Your task to perform on an android device: Open internet settings Image 0: 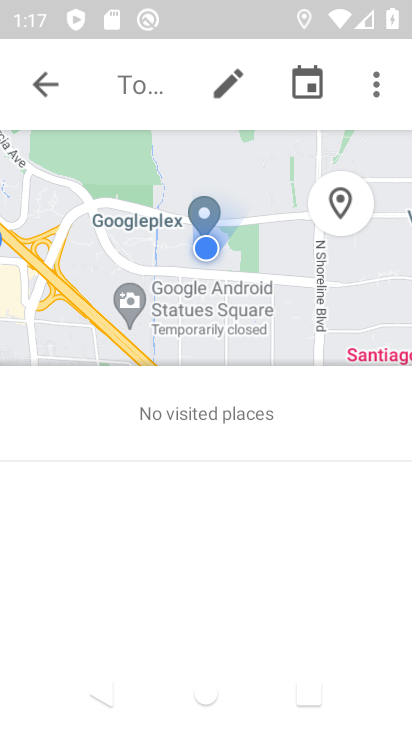
Step 0: press home button
Your task to perform on an android device: Open internet settings Image 1: 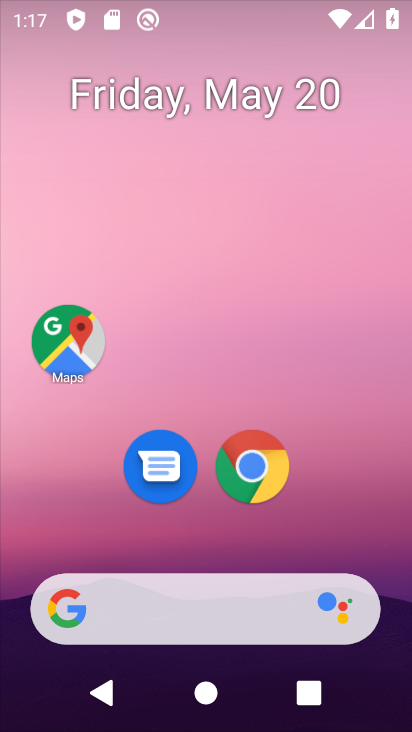
Step 1: drag from (183, 560) to (199, 180)
Your task to perform on an android device: Open internet settings Image 2: 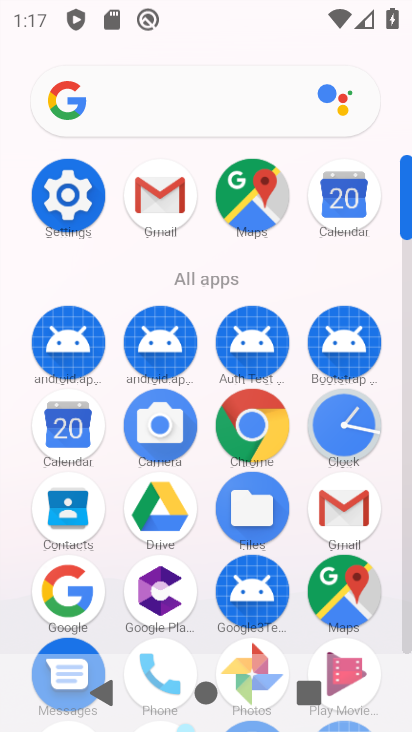
Step 2: click (79, 202)
Your task to perform on an android device: Open internet settings Image 3: 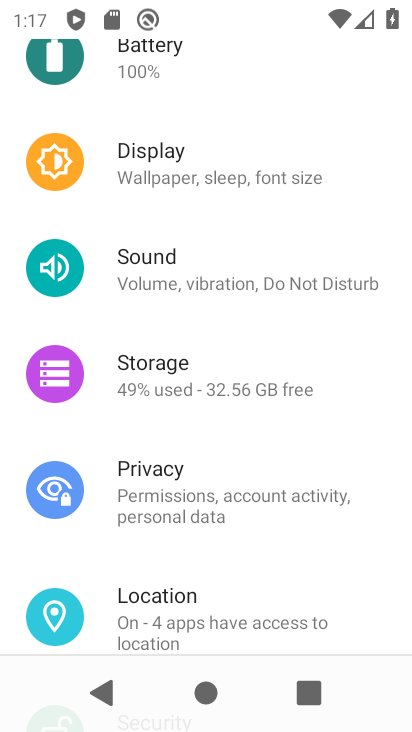
Step 3: drag from (145, 189) to (189, 475)
Your task to perform on an android device: Open internet settings Image 4: 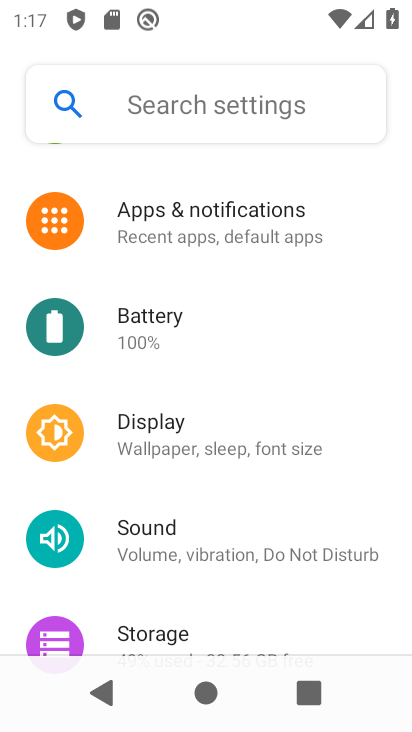
Step 4: drag from (208, 248) to (248, 526)
Your task to perform on an android device: Open internet settings Image 5: 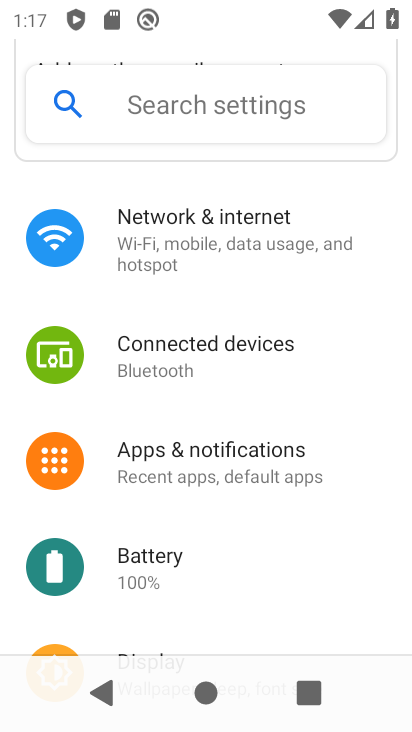
Step 5: drag from (219, 319) to (241, 466)
Your task to perform on an android device: Open internet settings Image 6: 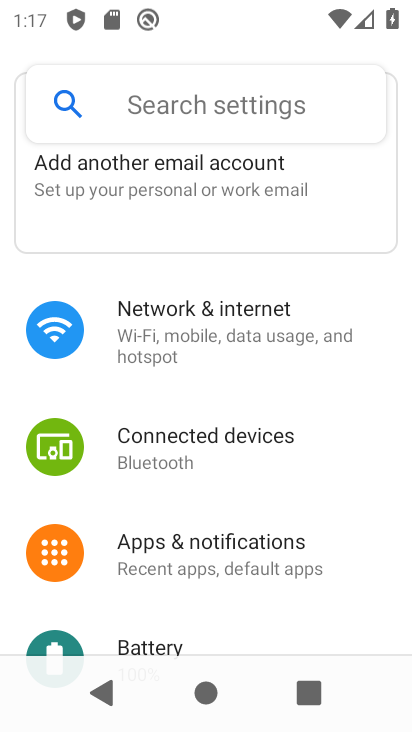
Step 6: drag from (213, 289) to (225, 513)
Your task to perform on an android device: Open internet settings Image 7: 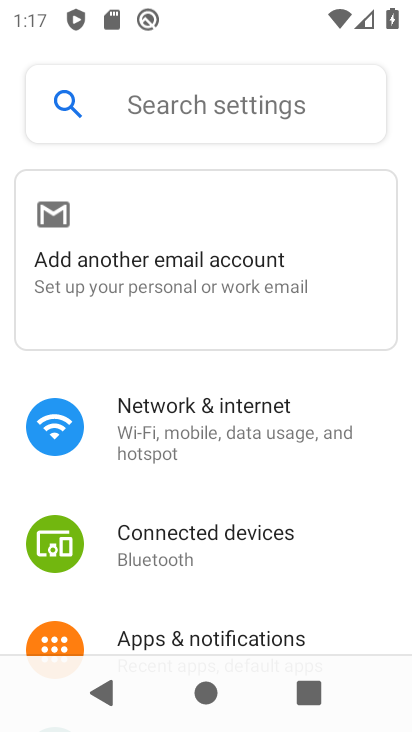
Step 7: click (194, 416)
Your task to perform on an android device: Open internet settings Image 8: 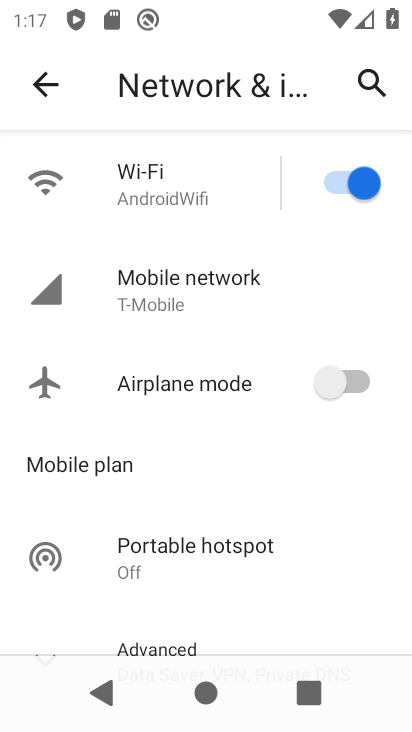
Step 8: click (195, 293)
Your task to perform on an android device: Open internet settings Image 9: 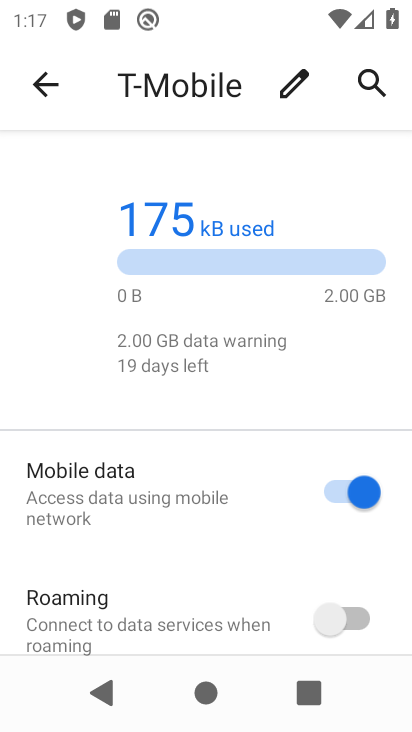
Step 9: task complete